Your task to perform on an android device: open a bookmark in the chrome app Image 0: 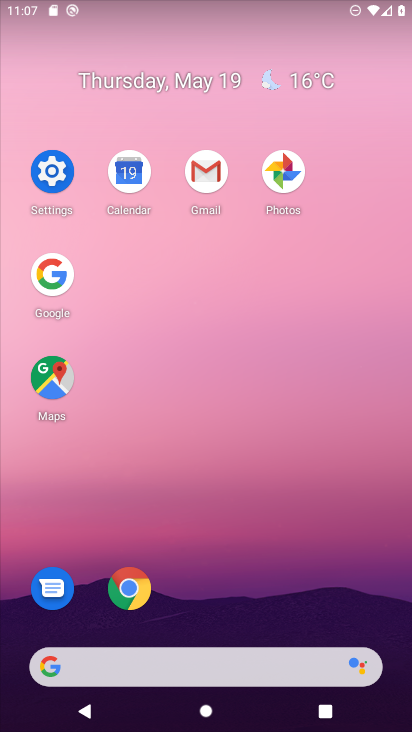
Step 0: click (143, 591)
Your task to perform on an android device: open a bookmark in the chrome app Image 1: 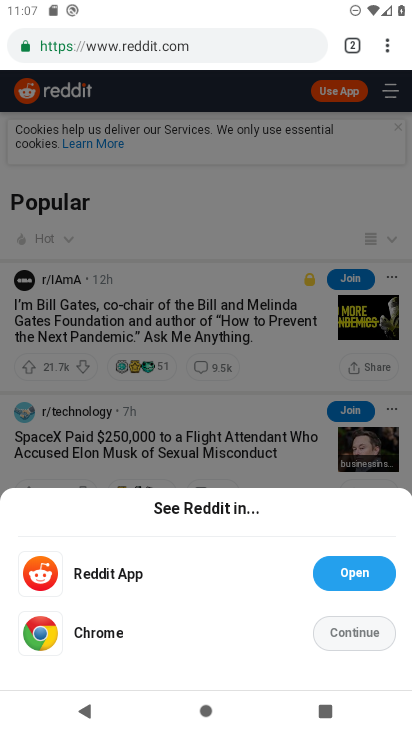
Step 1: click (387, 50)
Your task to perform on an android device: open a bookmark in the chrome app Image 2: 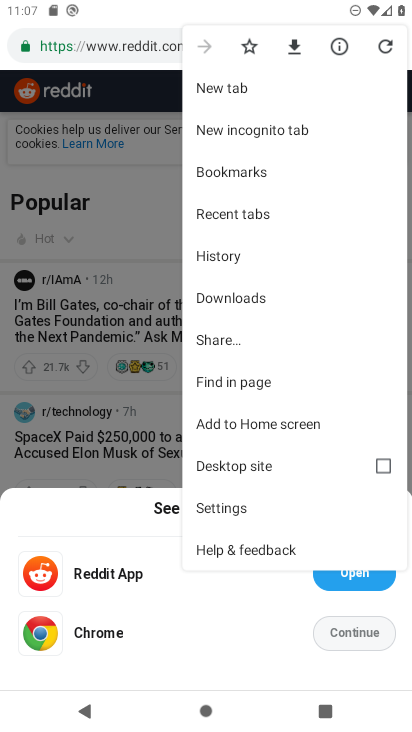
Step 2: click (267, 180)
Your task to perform on an android device: open a bookmark in the chrome app Image 3: 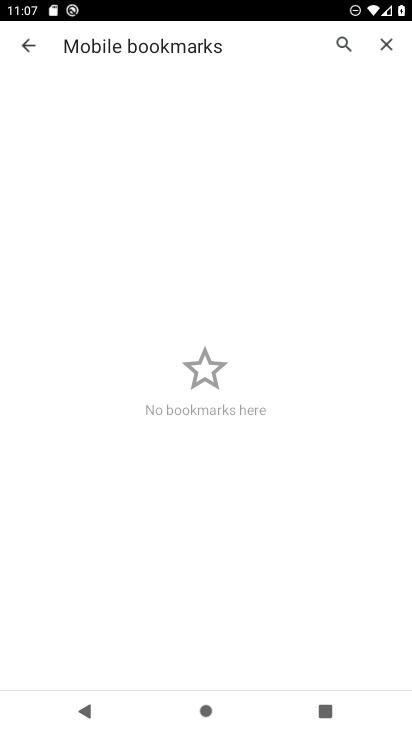
Step 3: task complete